Your task to perform on an android device: Add lg ultragear to the cart on walmart, then select checkout. Image 0: 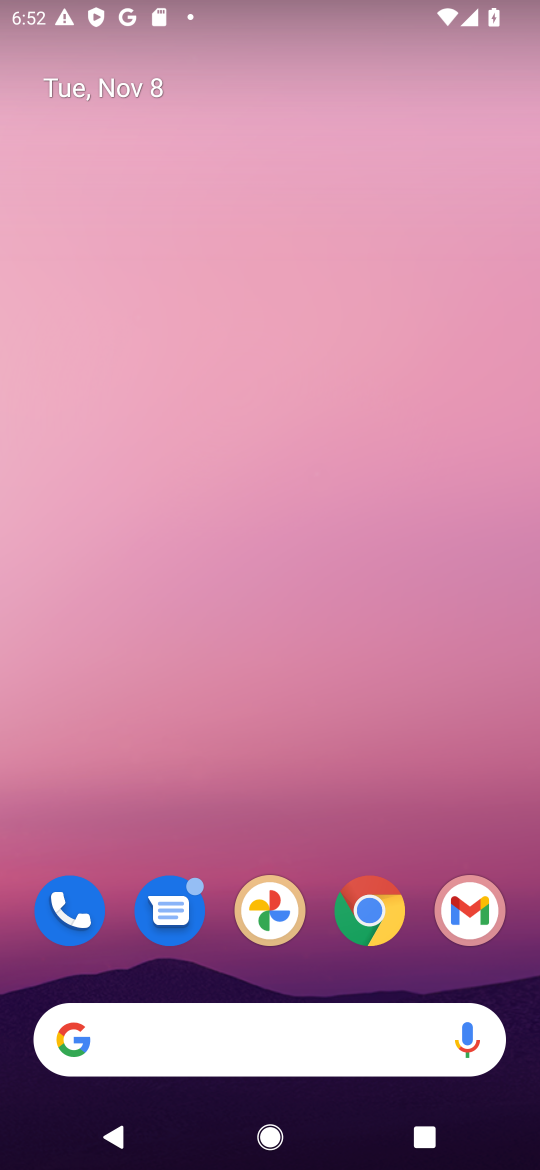
Step 0: click (374, 899)
Your task to perform on an android device: Add lg ultragear to the cart on walmart, then select checkout. Image 1: 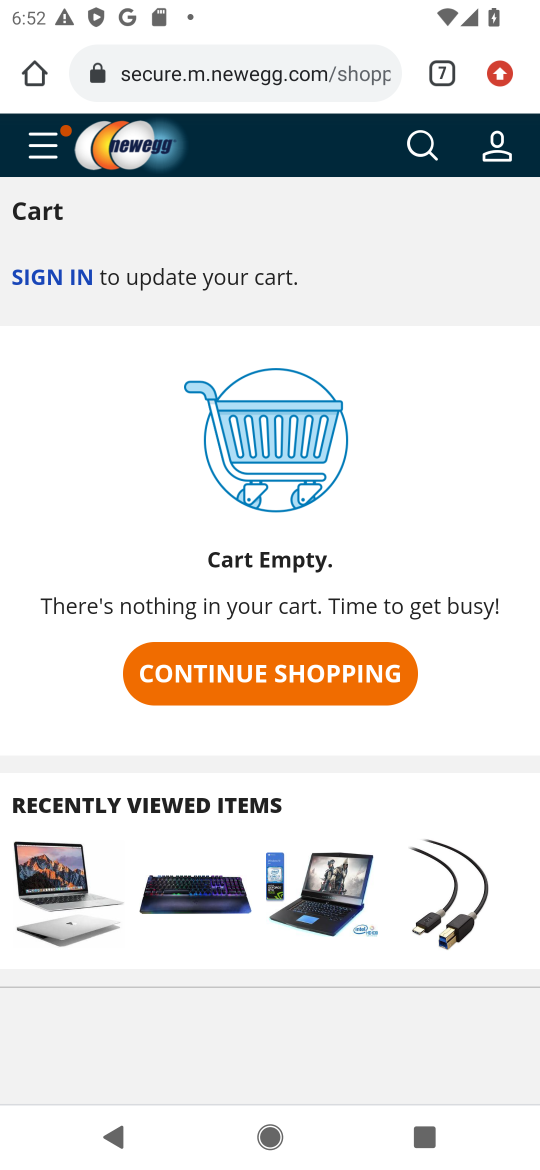
Step 1: click (447, 82)
Your task to perform on an android device: Add lg ultragear to the cart on walmart, then select checkout. Image 2: 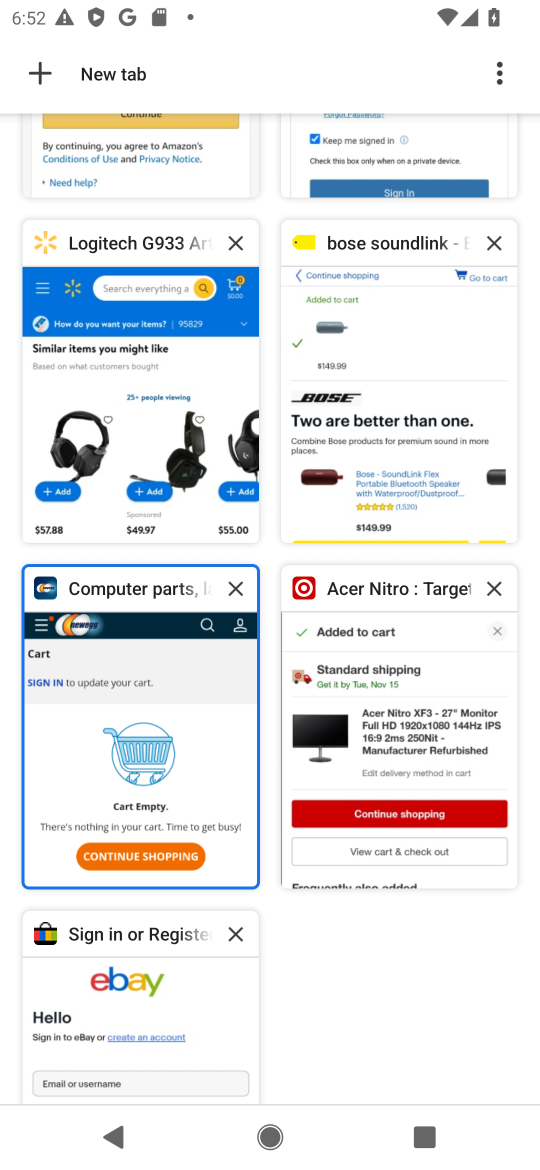
Step 2: click (199, 305)
Your task to perform on an android device: Add lg ultragear to the cart on walmart, then select checkout. Image 3: 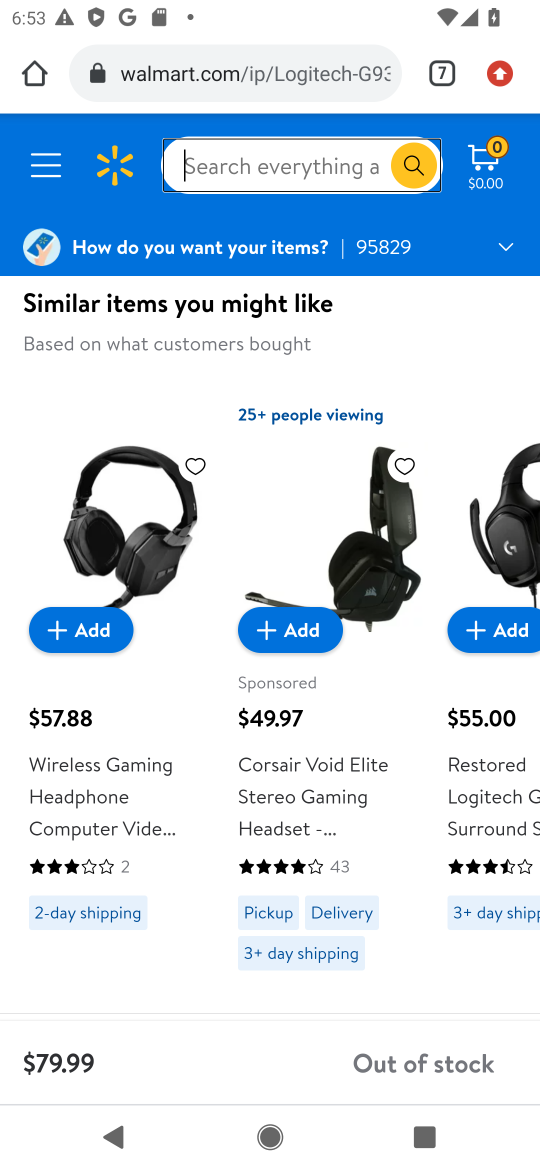
Step 3: type "lg ultragear"
Your task to perform on an android device: Add lg ultragear to the cart on walmart, then select checkout. Image 4: 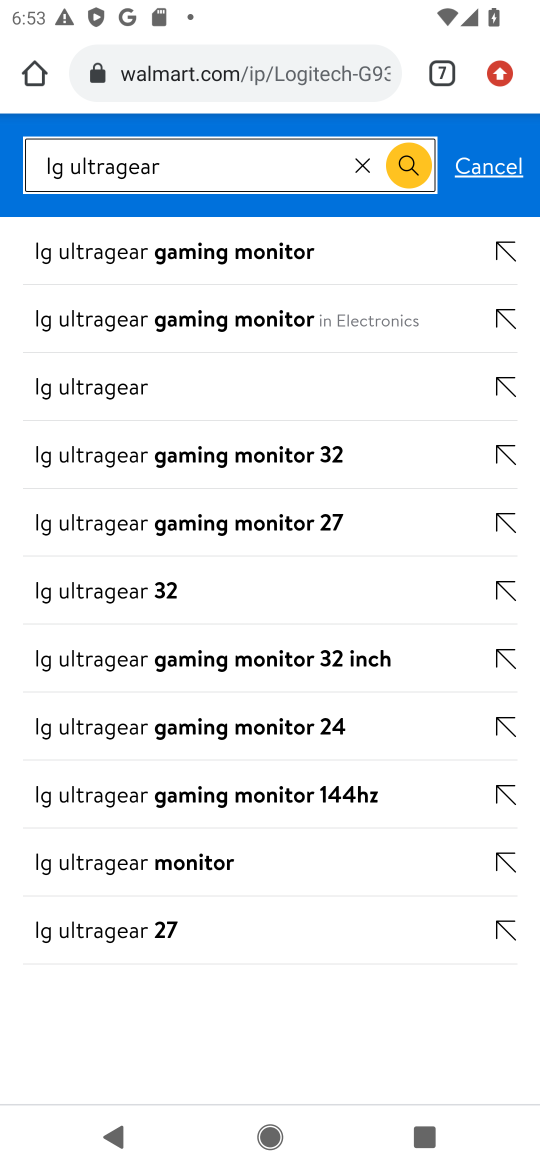
Step 4: click (259, 323)
Your task to perform on an android device: Add lg ultragear to the cart on walmart, then select checkout. Image 5: 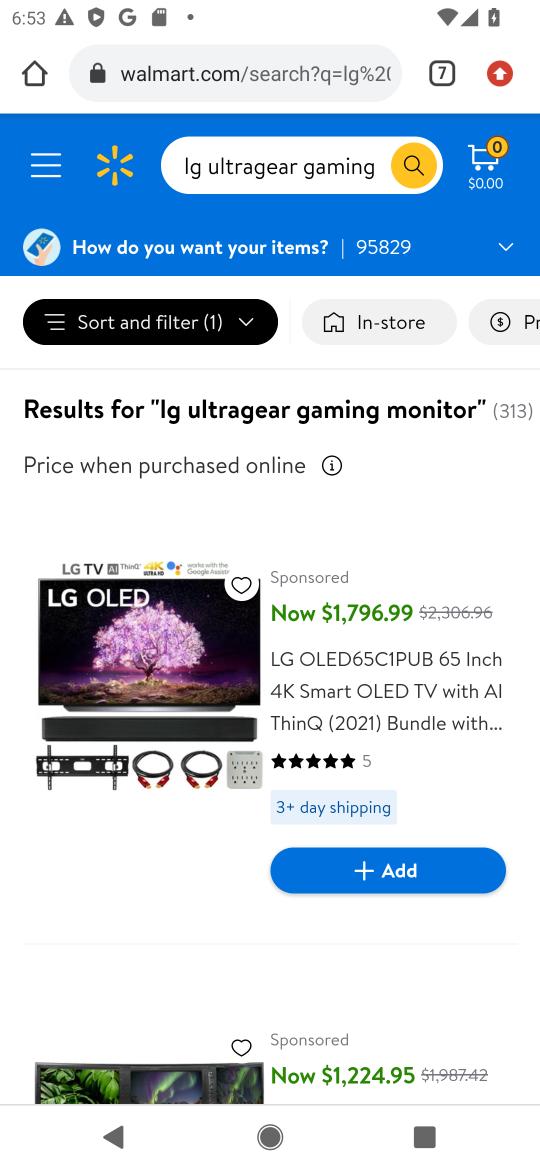
Step 5: drag from (265, 947) to (87, 137)
Your task to perform on an android device: Add lg ultragear to the cart on walmart, then select checkout. Image 6: 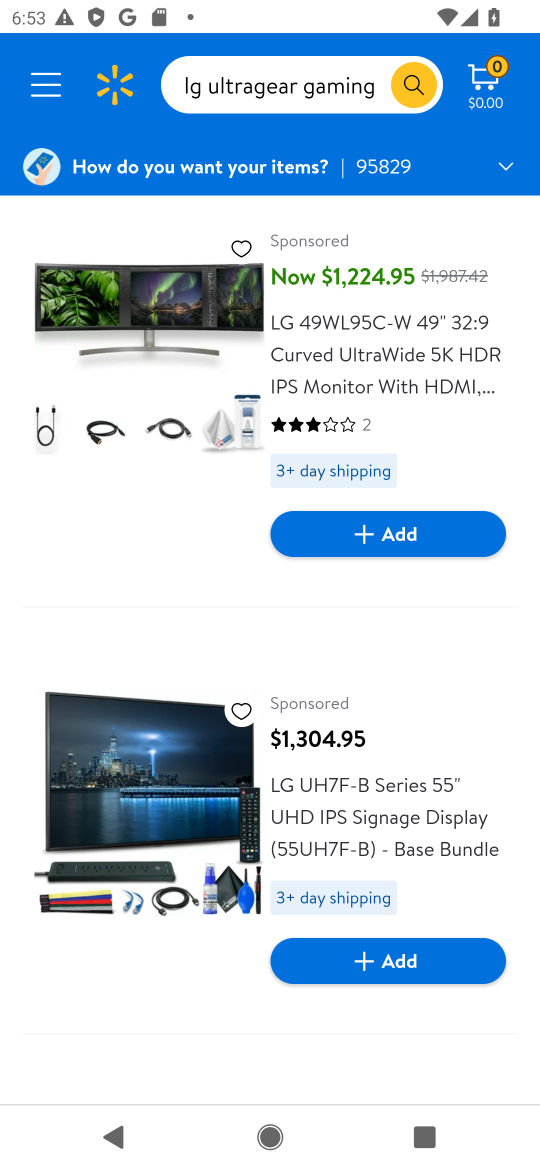
Step 6: click (424, 541)
Your task to perform on an android device: Add lg ultragear to the cart on walmart, then select checkout. Image 7: 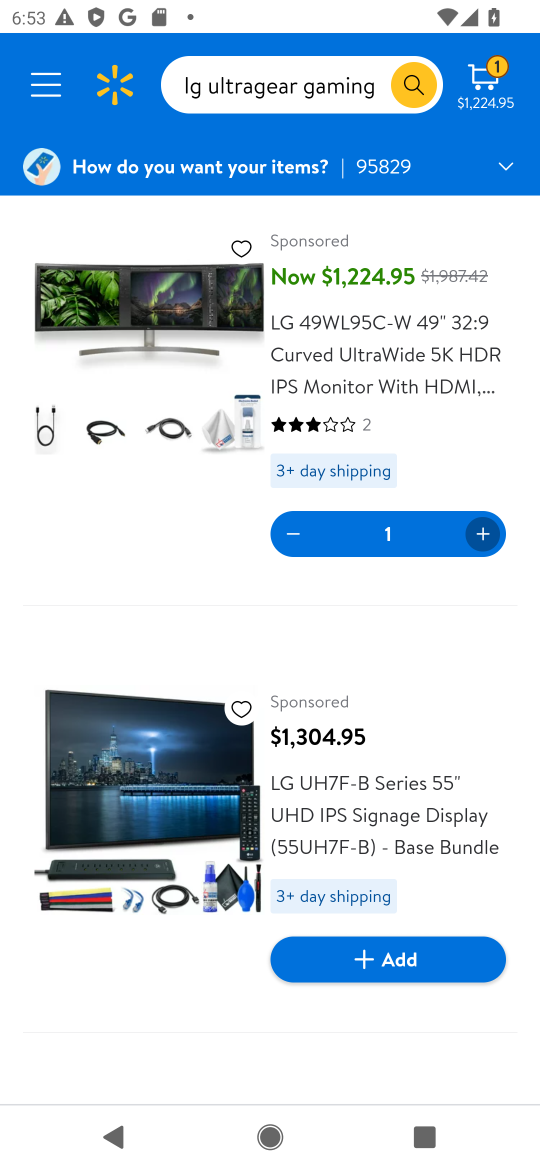
Step 7: task complete